Your task to perform on an android device: Is it going to rain this weekend? Image 0: 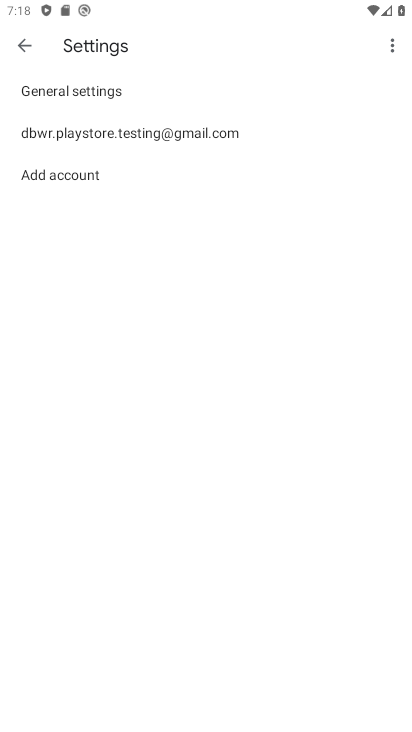
Step 0: press home button
Your task to perform on an android device: Is it going to rain this weekend? Image 1: 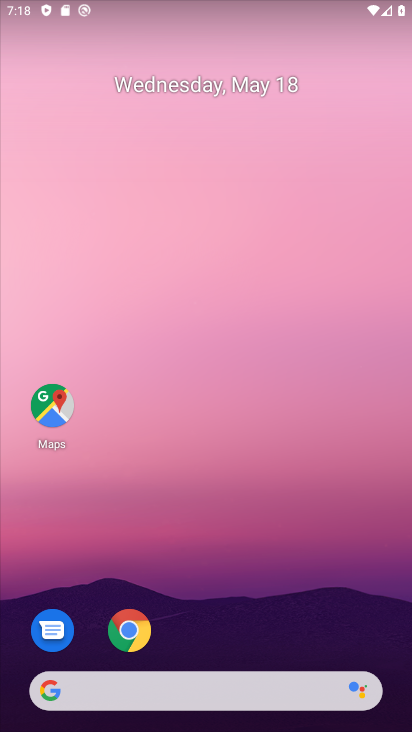
Step 1: click (242, 687)
Your task to perform on an android device: Is it going to rain this weekend? Image 2: 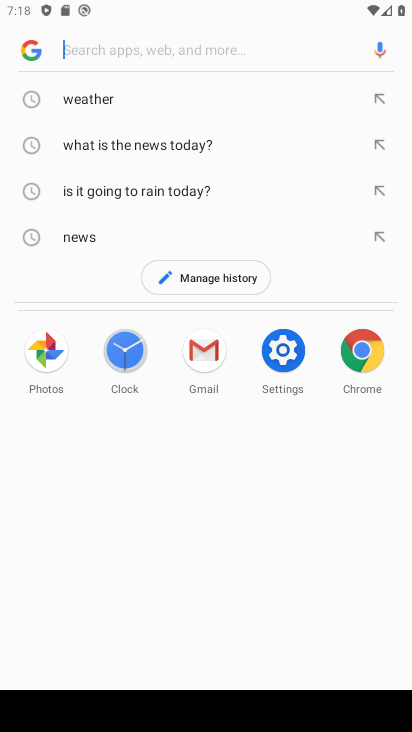
Step 2: click (92, 93)
Your task to perform on an android device: Is it going to rain this weekend? Image 3: 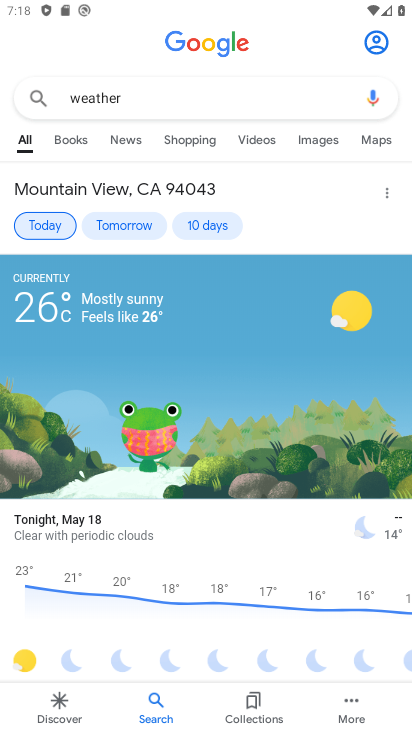
Step 3: click (193, 225)
Your task to perform on an android device: Is it going to rain this weekend? Image 4: 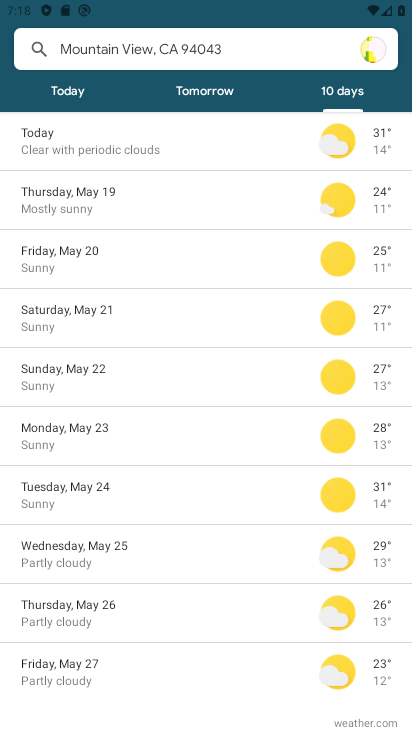
Step 4: task complete